Your task to perform on an android device: install app "PlayWell" Image 0: 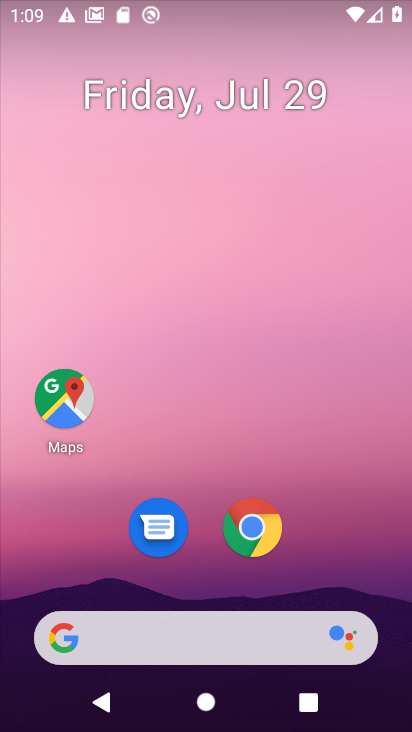
Step 0: drag from (244, 718) to (183, 115)
Your task to perform on an android device: install app "PlayWell" Image 1: 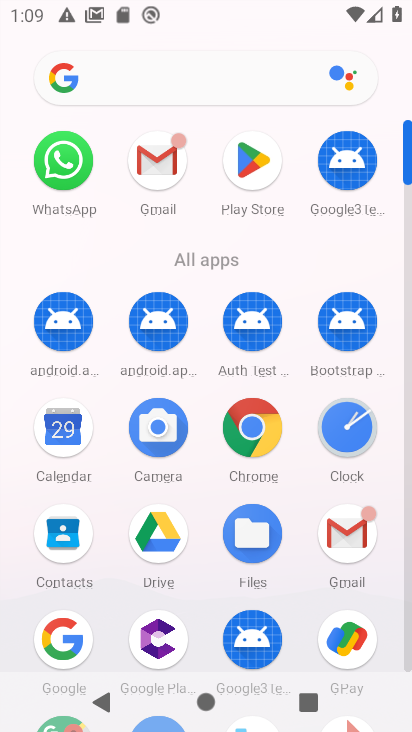
Step 1: click (250, 163)
Your task to perform on an android device: install app "PlayWell" Image 2: 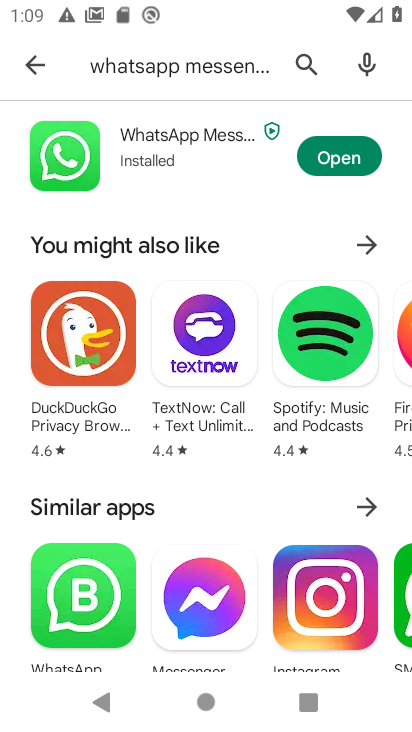
Step 2: click (299, 56)
Your task to perform on an android device: install app "PlayWell" Image 3: 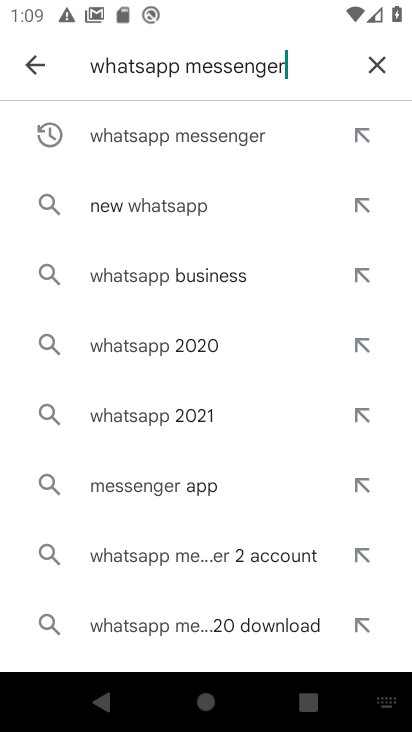
Step 3: click (381, 61)
Your task to perform on an android device: install app "PlayWell" Image 4: 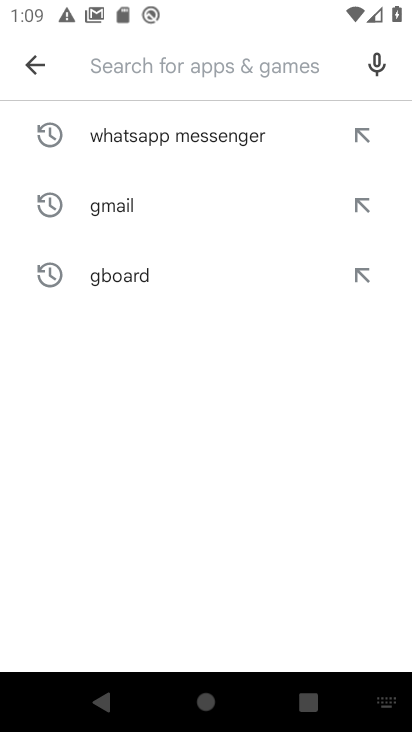
Step 4: type "PlayWell"
Your task to perform on an android device: install app "PlayWell" Image 5: 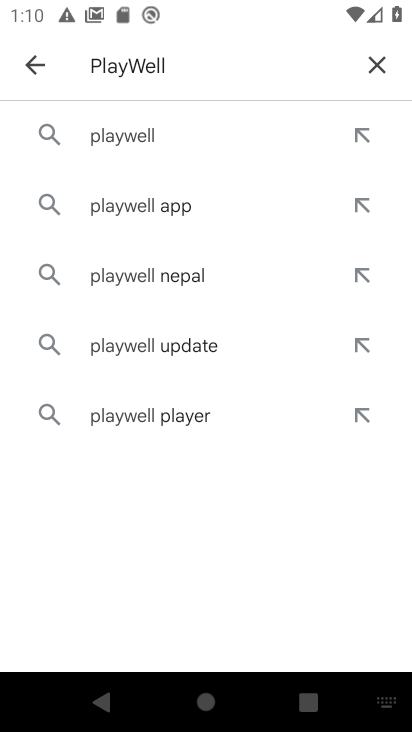
Step 5: click (140, 139)
Your task to perform on an android device: install app "PlayWell" Image 6: 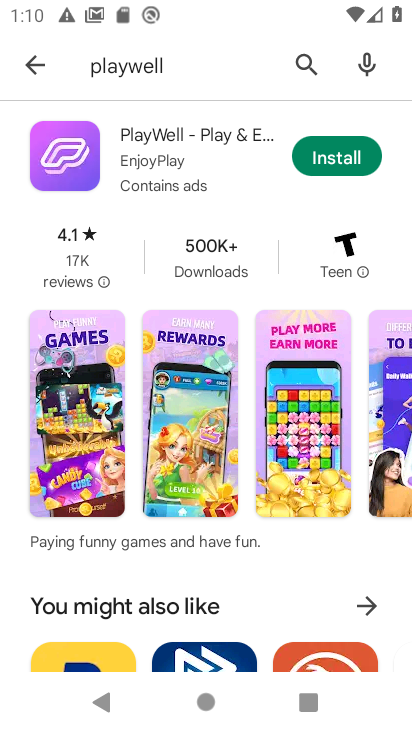
Step 6: click (337, 160)
Your task to perform on an android device: install app "PlayWell" Image 7: 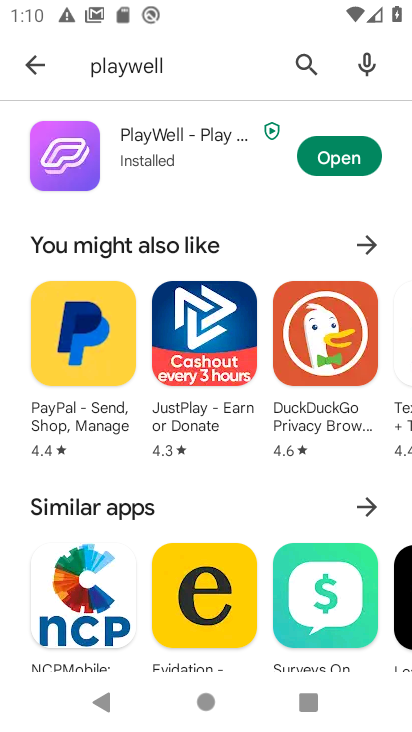
Step 7: task complete